Your task to perform on an android device: Search for the best rated 150-piece drill bit set on Aliexpress. Image 0: 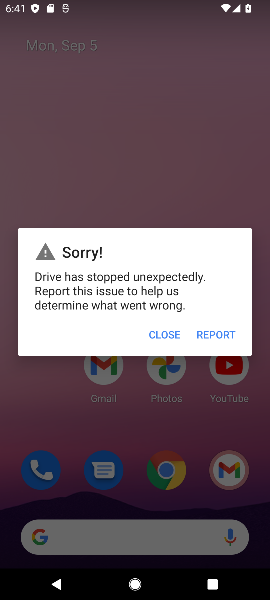
Step 0: press home button
Your task to perform on an android device: Search for the best rated 150-piece drill bit set on Aliexpress. Image 1: 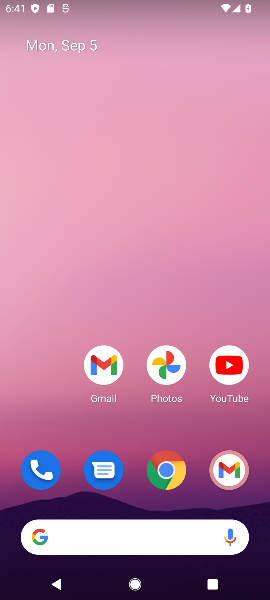
Step 1: click (96, 526)
Your task to perform on an android device: Search for the best rated 150-piece drill bit set on Aliexpress. Image 2: 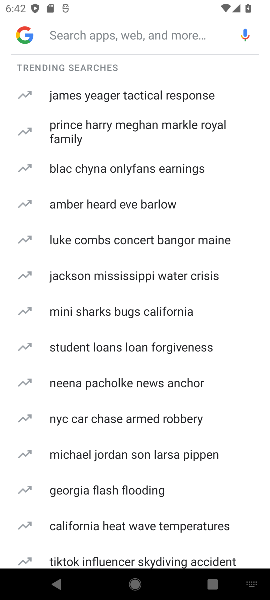
Step 2: type "aliexpress"
Your task to perform on an android device: Search for the best rated 150-piece drill bit set on Aliexpress. Image 3: 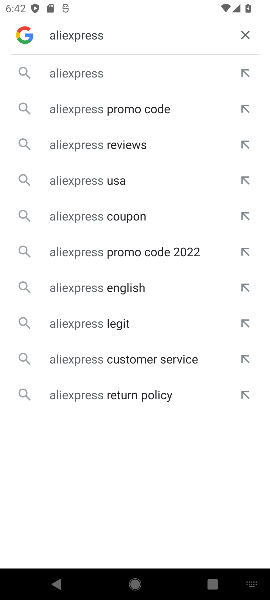
Step 3: click (122, 77)
Your task to perform on an android device: Search for the best rated 150-piece drill bit set on Aliexpress. Image 4: 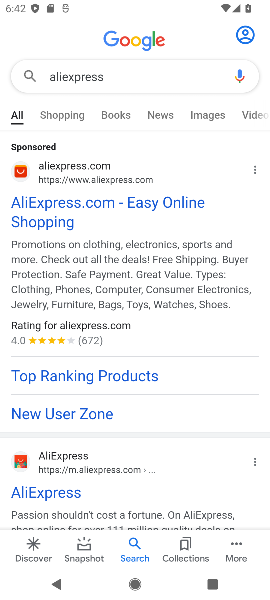
Step 4: click (52, 491)
Your task to perform on an android device: Search for the best rated 150-piece drill bit set on Aliexpress. Image 5: 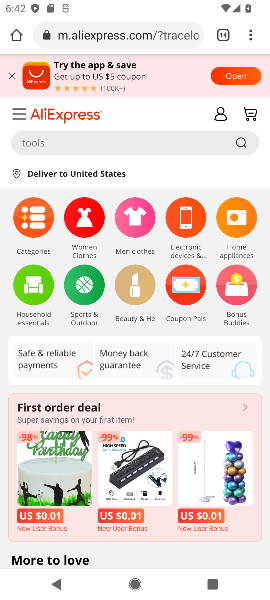
Step 5: click (214, 140)
Your task to perform on an android device: Search for the best rated 150-piece drill bit set on Aliexpress. Image 6: 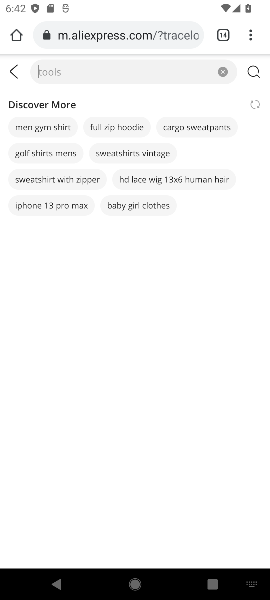
Step 6: type "best rated 150-piece drill bit set"
Your task to perform on an android device: Search for the best rated 150-piece drill bit set on Aliexpress. Image 7: 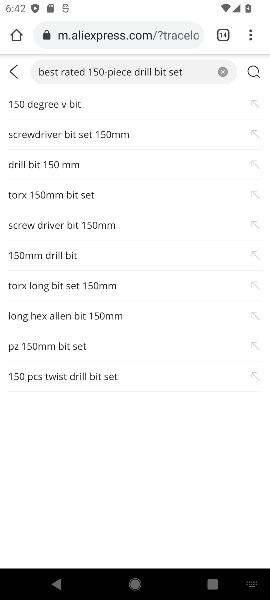
Step 7: click (250, 70)
Your task to perform on an android device: Search for the best rated 150-piece drill bit set on Aliexpress. Image 8: 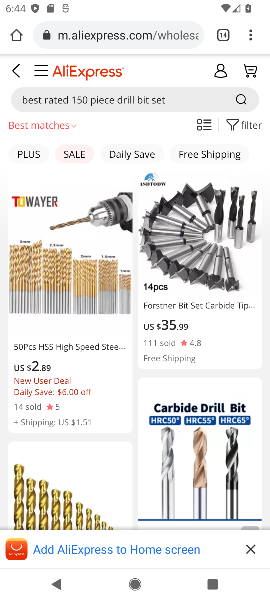
Step 8: task complete